Your task to perform on an android device: Open maps Image 0: 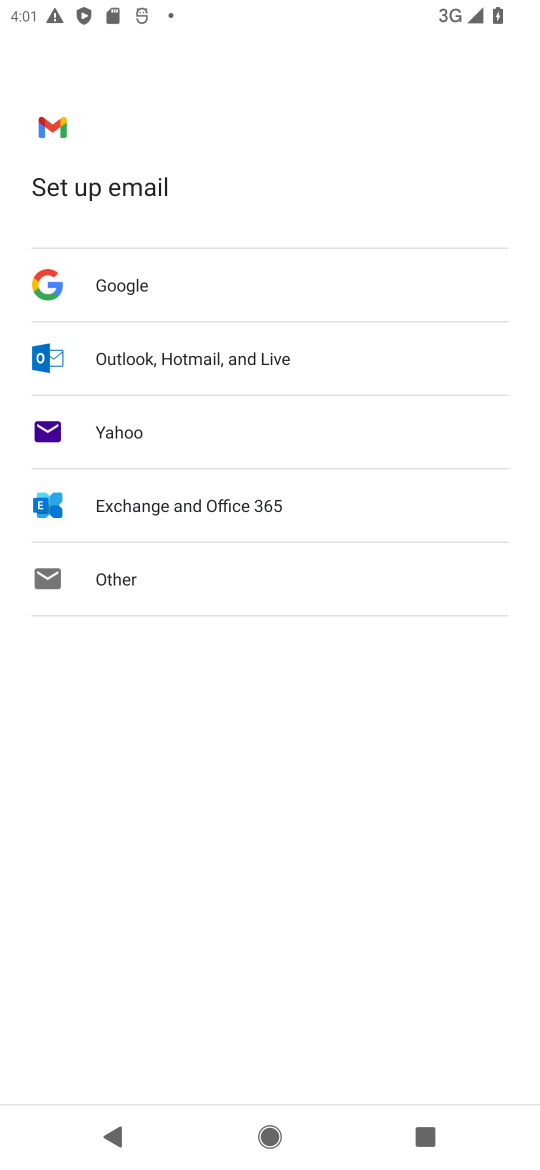
Step 0: press home button
Your task to perform on an android device: Open maps Image 1: 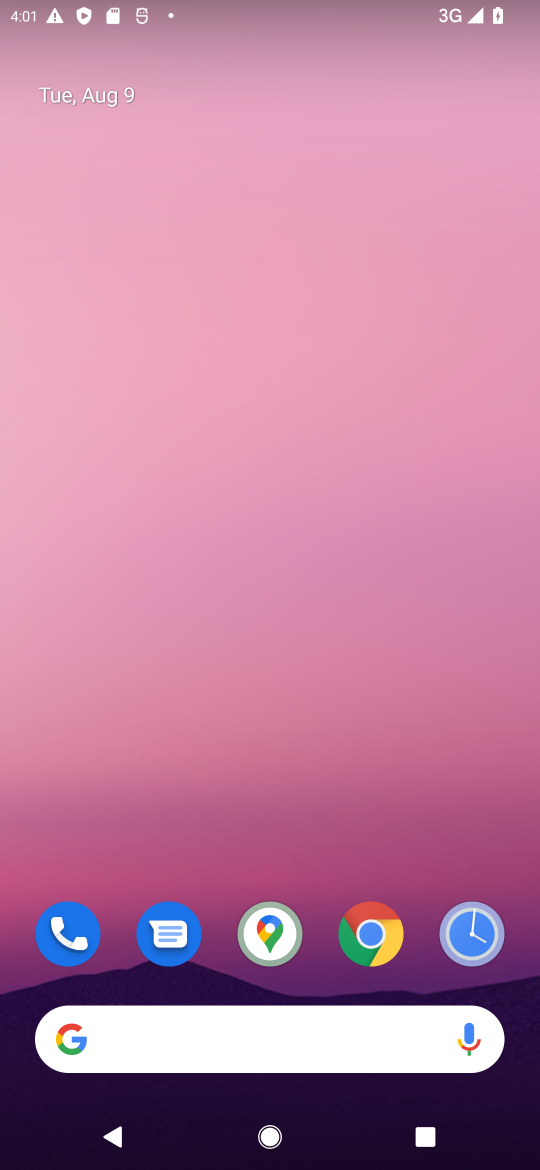
Step 1: click (293, 911)
Your task to perform on an android device: Open maps Image 2: 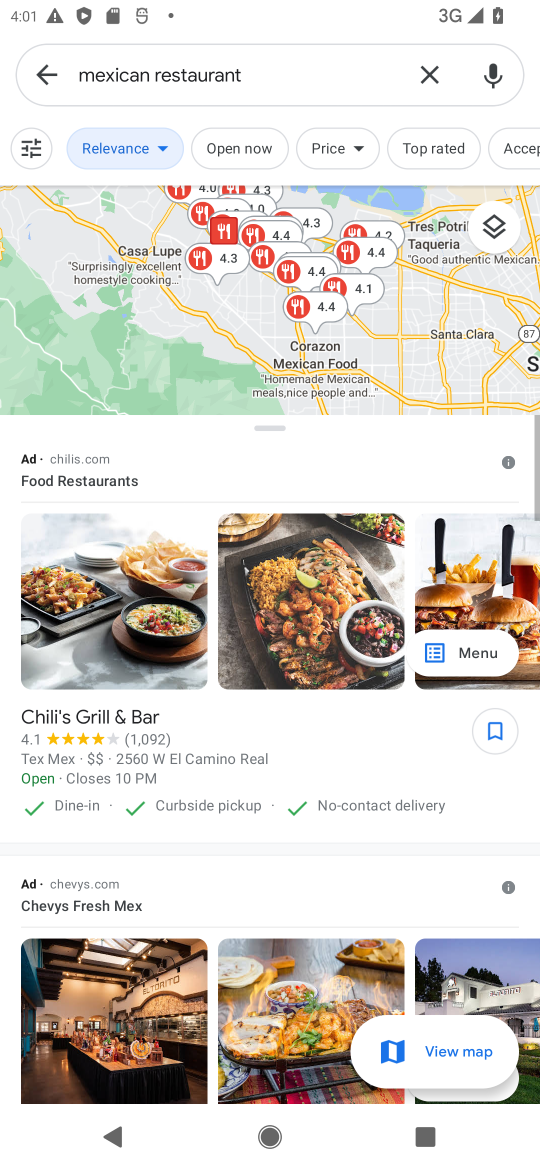
Step 2: task complete